Your task to perform on an android device: Go to Maps Image 0: 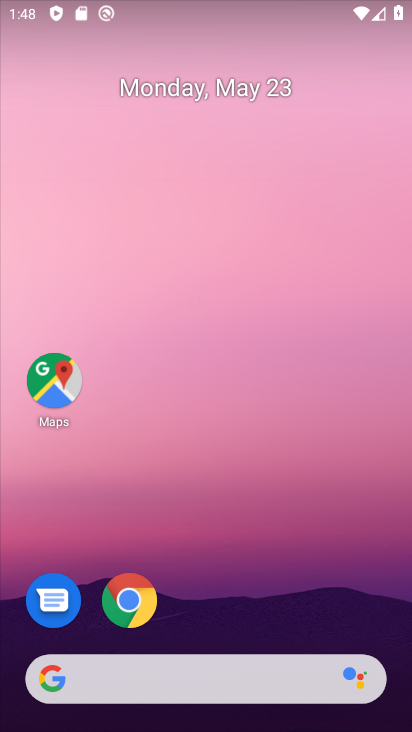
Step 0: click (45, 355)
Your task to perform on an android device: Go to Maps Image 1: 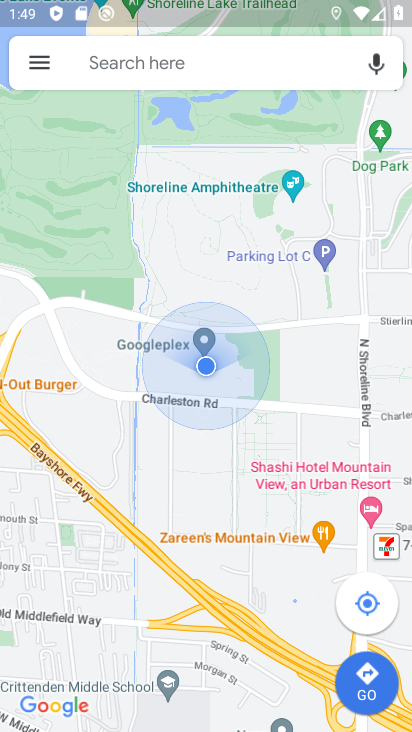
Step 1: task complete